Your task to perform on an android device: turn off smart reply in the gmail app Image 0: 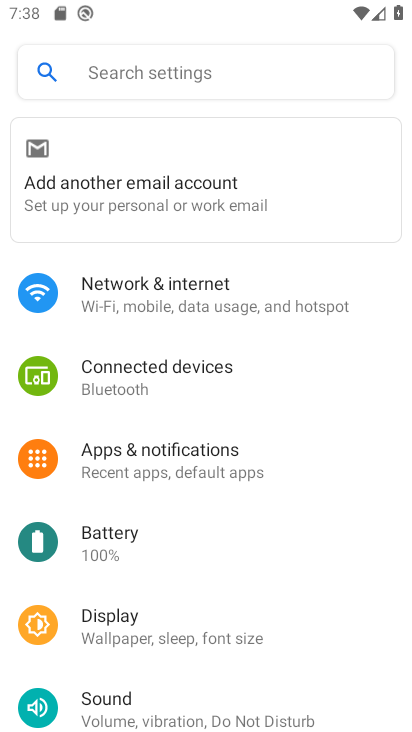
Step 0: press home button
Your task to perform on an android device: turn off smart reply in the gmail app Image 1: 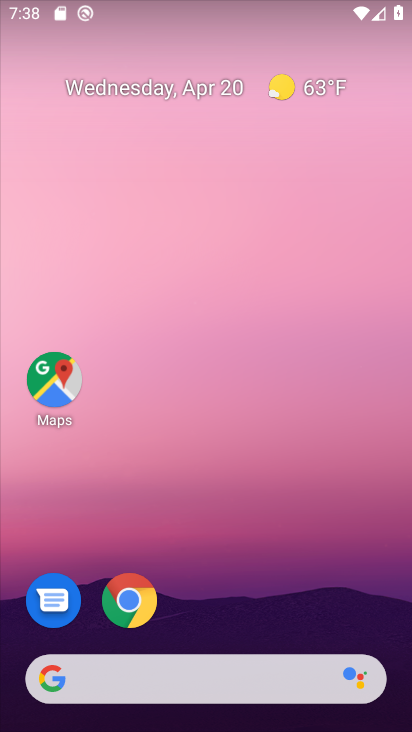
Step 1: drag from (218, 605) to (199, 148)
Your task to perform on an android device: turn off smart reply in the gmail app Image 2: 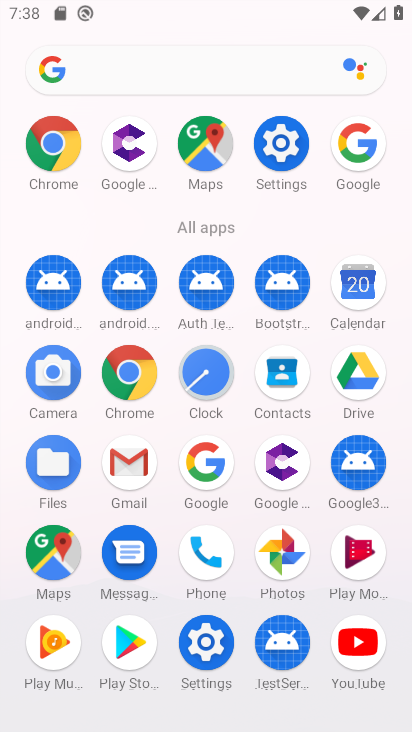
Step 2: click (127, 450)
Your task to perform on an android device: turn off smart reply in the gmail app Image 3: 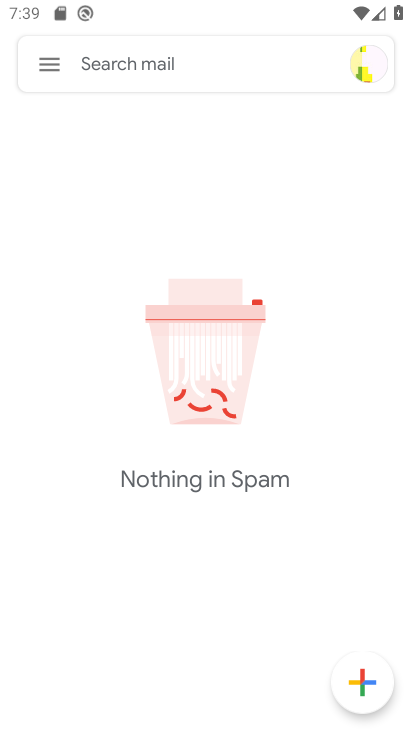
Step 3: click (45, 64)
Your task to perform on an android device: turn off smart reply in the gmail app Image 4: 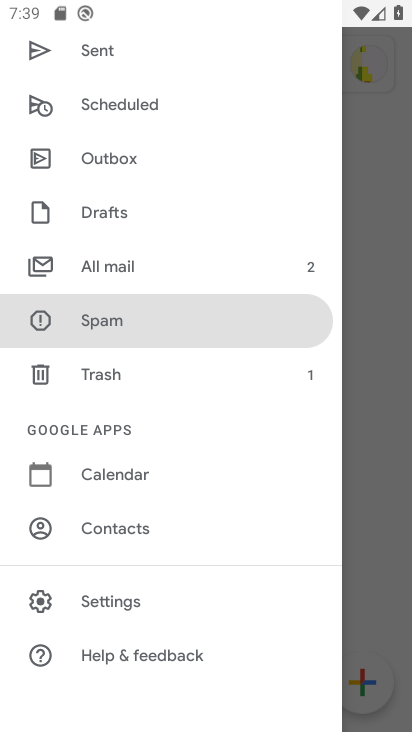
Step 4: click (127, 597)
Your task to perform on an android device: turn off smart reply in the gmail app Image 5: 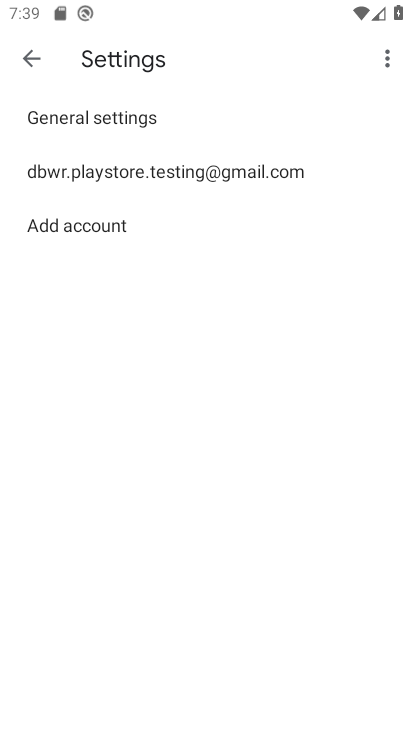
Step 5: click (164, 169)
Your task to perform on an android device: turn off smart reply in the gmail app Image 6: 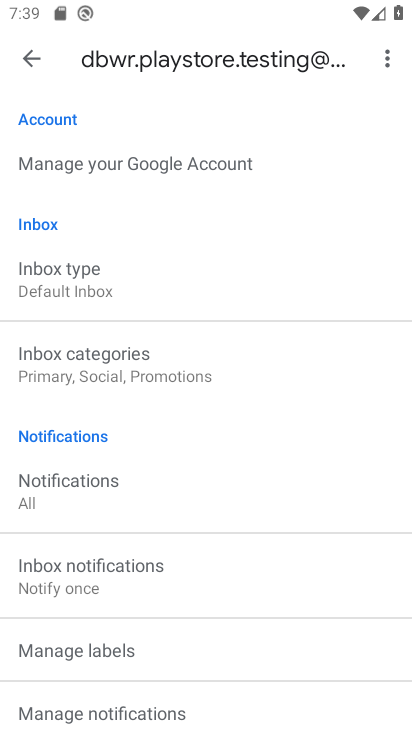
Step 6: drag from (144, 472) to (148, 194)
Your task to perform on an android device: turn off smart reply in the gmail app Image 7: 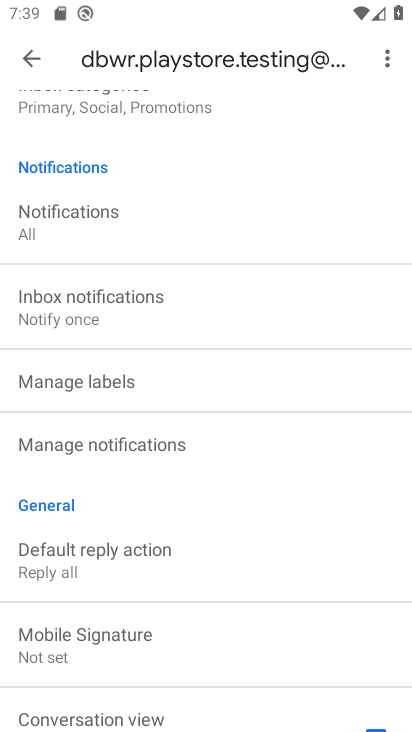
Step 7: drag from (138, 597) to (122, 103)
Your task to perform on an android device: turn off smart reply in the gmail app Image 8: 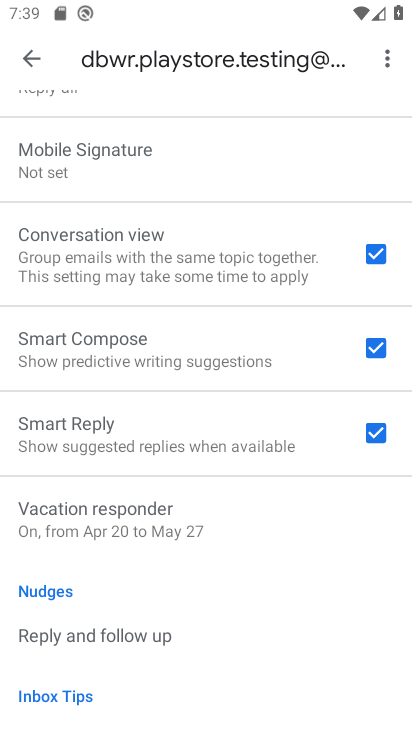
Step 8: click (376, 428)
Your task to perform on an android device: turn off smart reply in the gmail app Image 9: 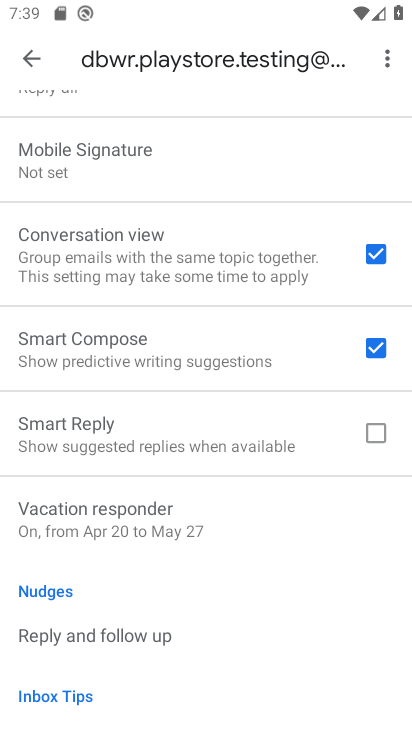
Step 9: task complete